Your task to perform on an android device: Go to wifi settings Image 0: 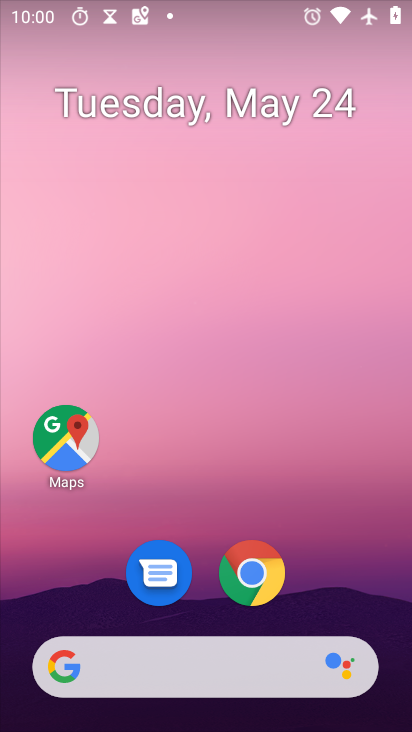
Step 0: drag from (353, 586) to (312, 54)
Your task to perform on an android device: Go to wifi settings Image 1: 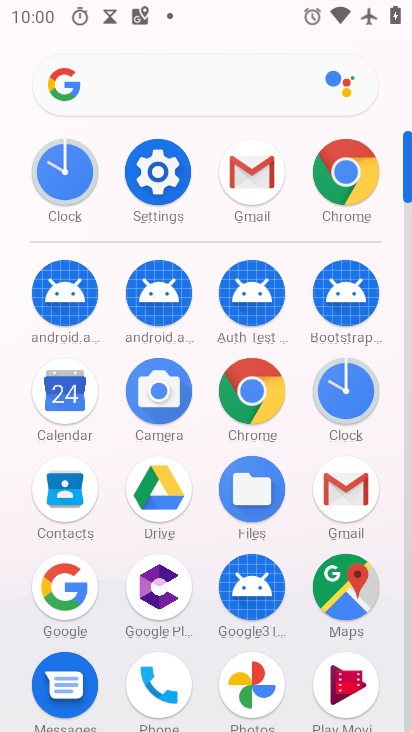
Step 1: click (143, 173)
Your task to perform on an android device: Go to wifi settings Image 2: 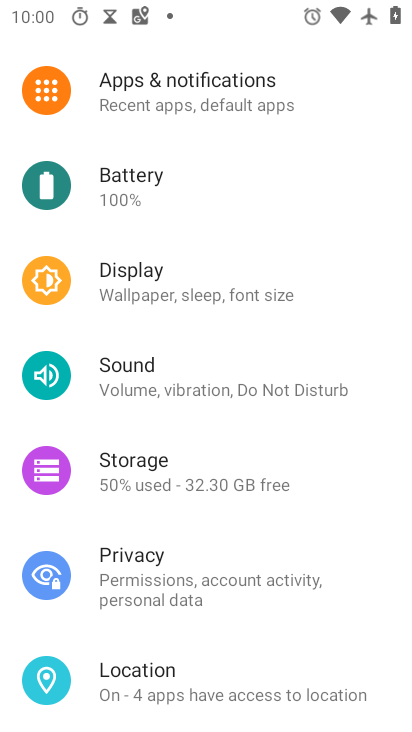
Step 2: drag from (186, 267) to (285, 698)
Your task to perform on an android device: Go to wifi settings Image 3: 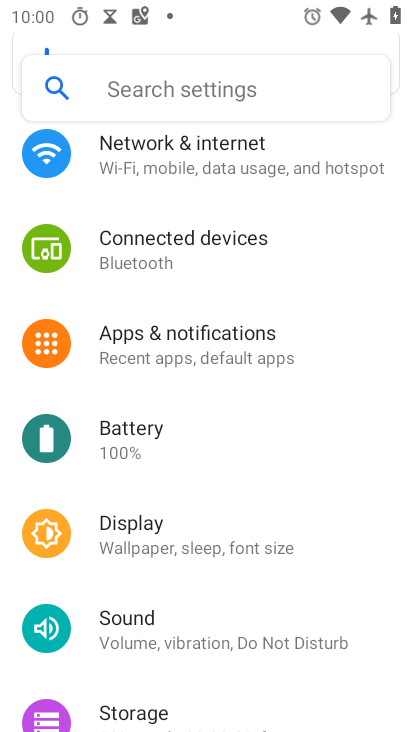
Step 3: drag from (243, 175) to (349, 674)
Your task to perform on an android device: Go to wifi settings Image 4: 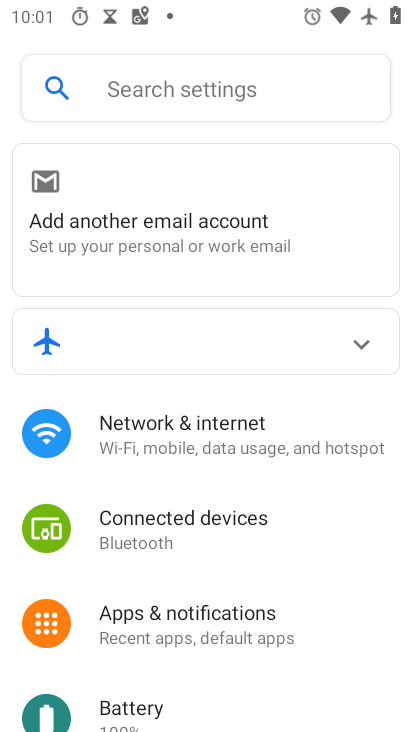
Step 4: click (228, 448)
Your task to perform on an android device: Go to wifi settings Image 5: 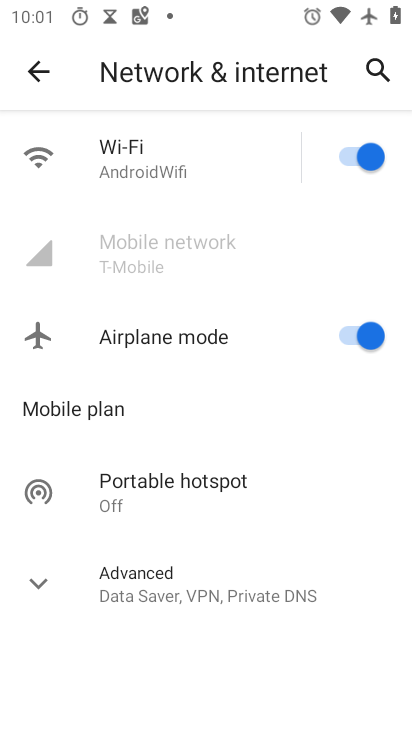
Step 5: click (162, 166)
Your task to perform on an android device: Go to wifi settings Image 6: 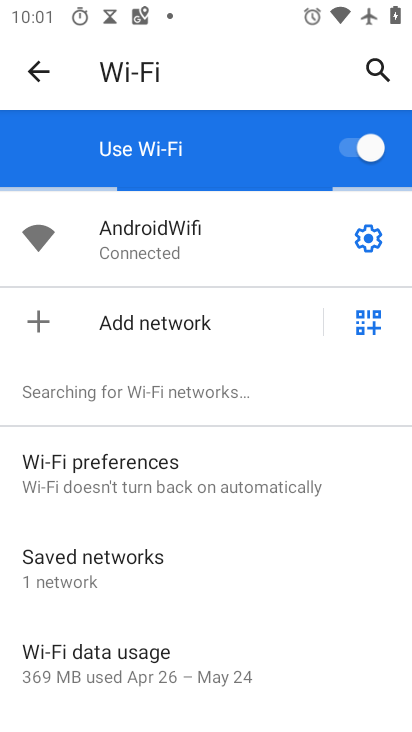
Step 6: task complete